Your task to perform on an android device: Show me recent news Image 0: 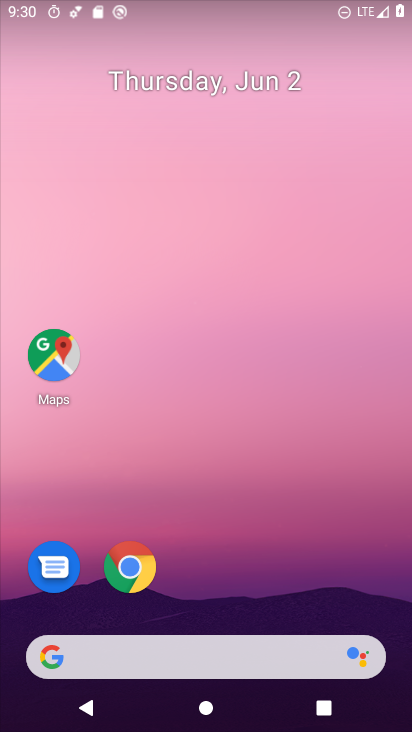
Step 0: drag from (317, 459) to (306, 79)
Your task to perform on an android device: Show me recent news Image 1: 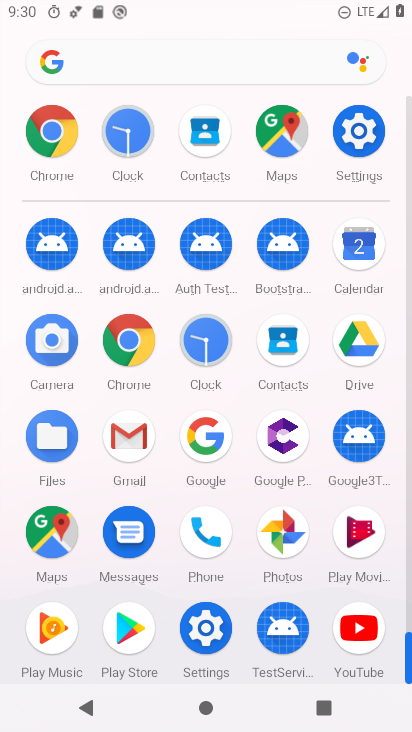
Step 1: click (134, 355)
Your task to perform on an android device: Show me recent news Image 2: 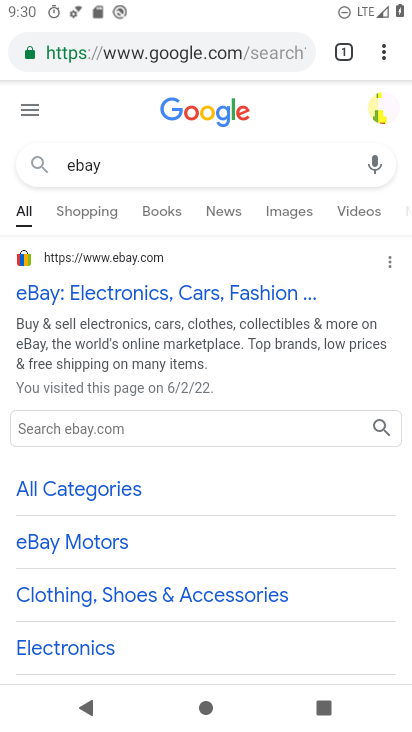
Step 2: click (188, 55)
Your task to perform on an android device: Show me recent news Image 3: 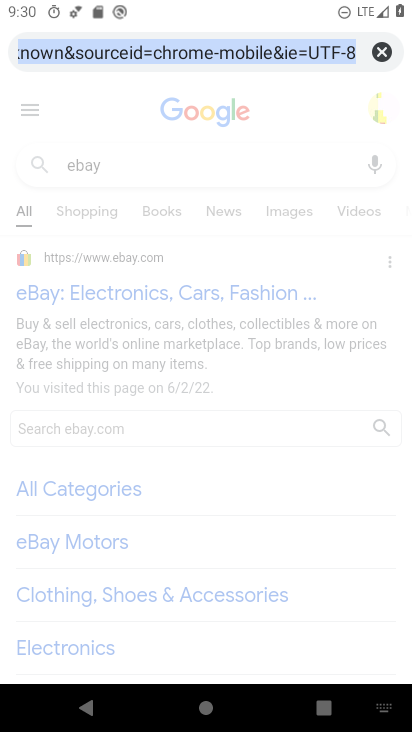
Step 3: click (386, 53)
Your task to perform on an android device: Show me recent news Image 4: 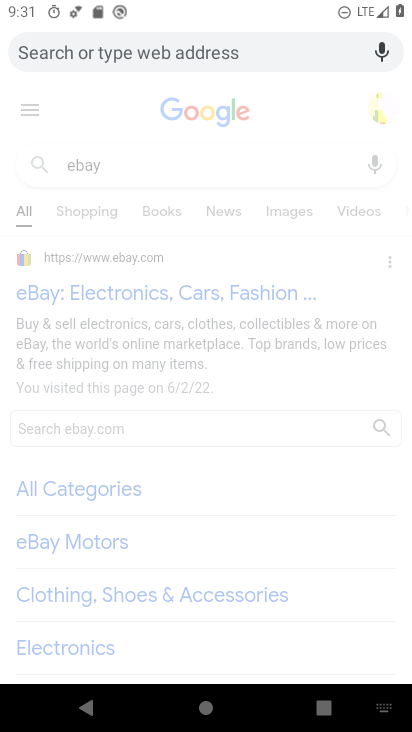
Step 4: type "show me recent news "
Your task to perform on an android device: Show me recent news Image 5: 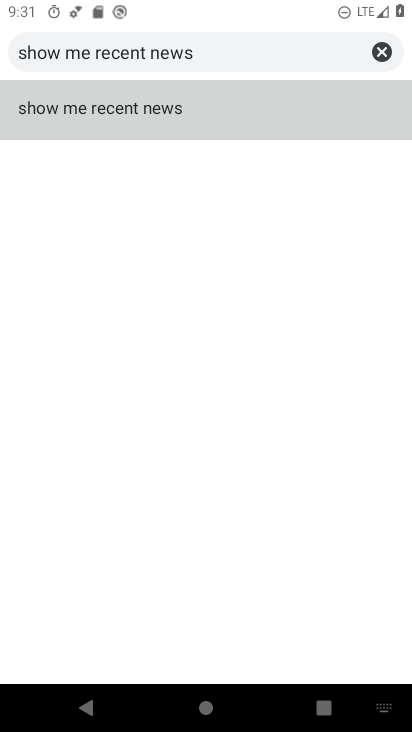
Step 5: click (101, 127)
Your task to perform on an android device: Show me recent news Image 6: 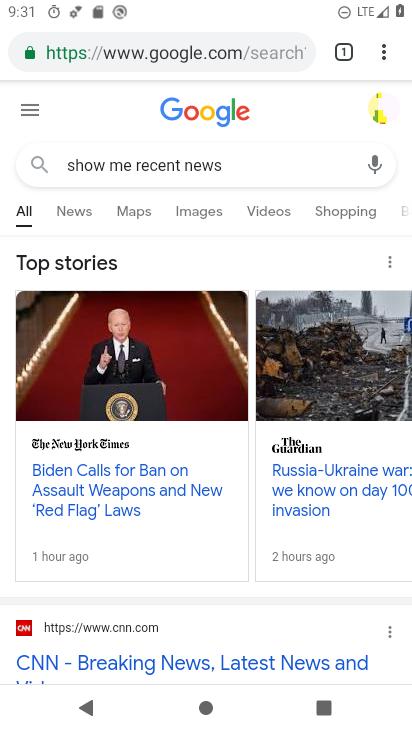
Step 6: task complete